Your task to perform on an android device: create a new album in the google photos Image 0: 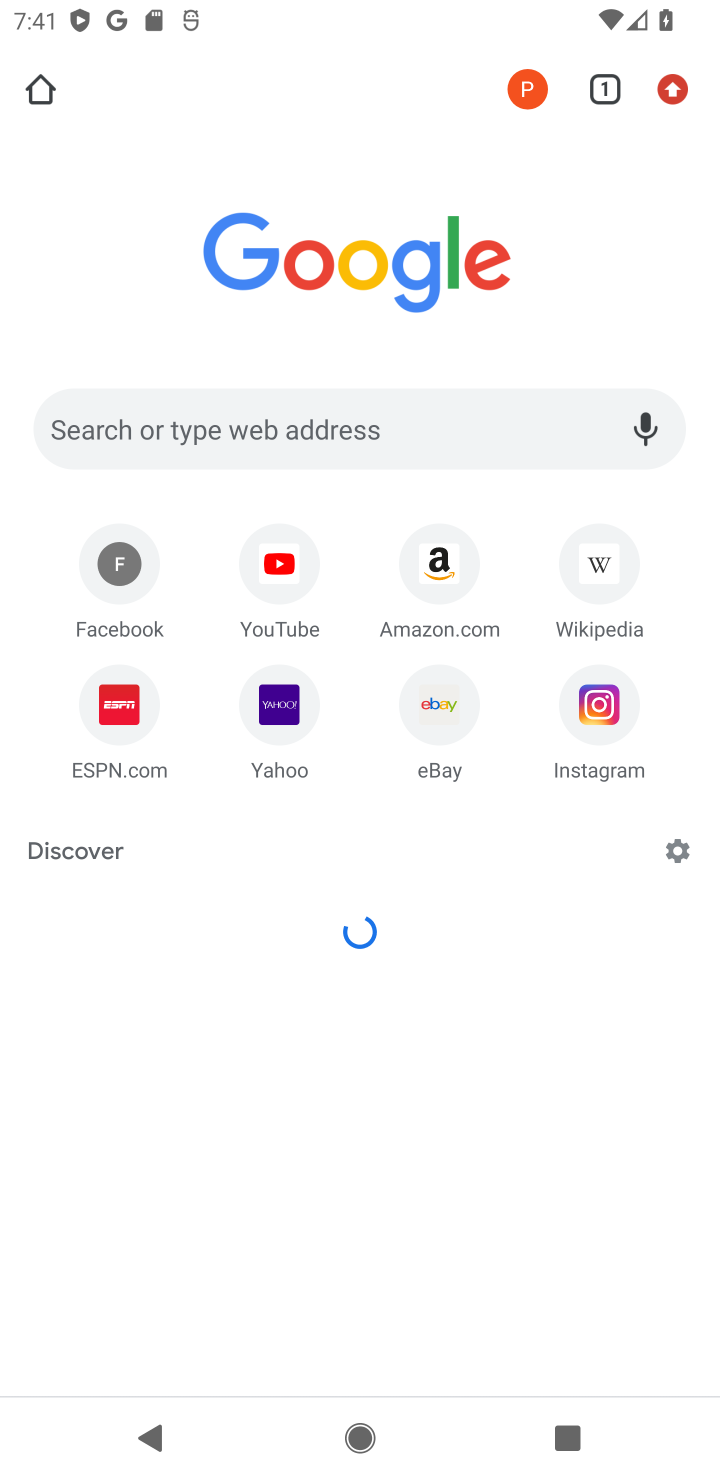
Step 0: press home button
Your task to perform on an android device: create a new album in the google photos Image 1: 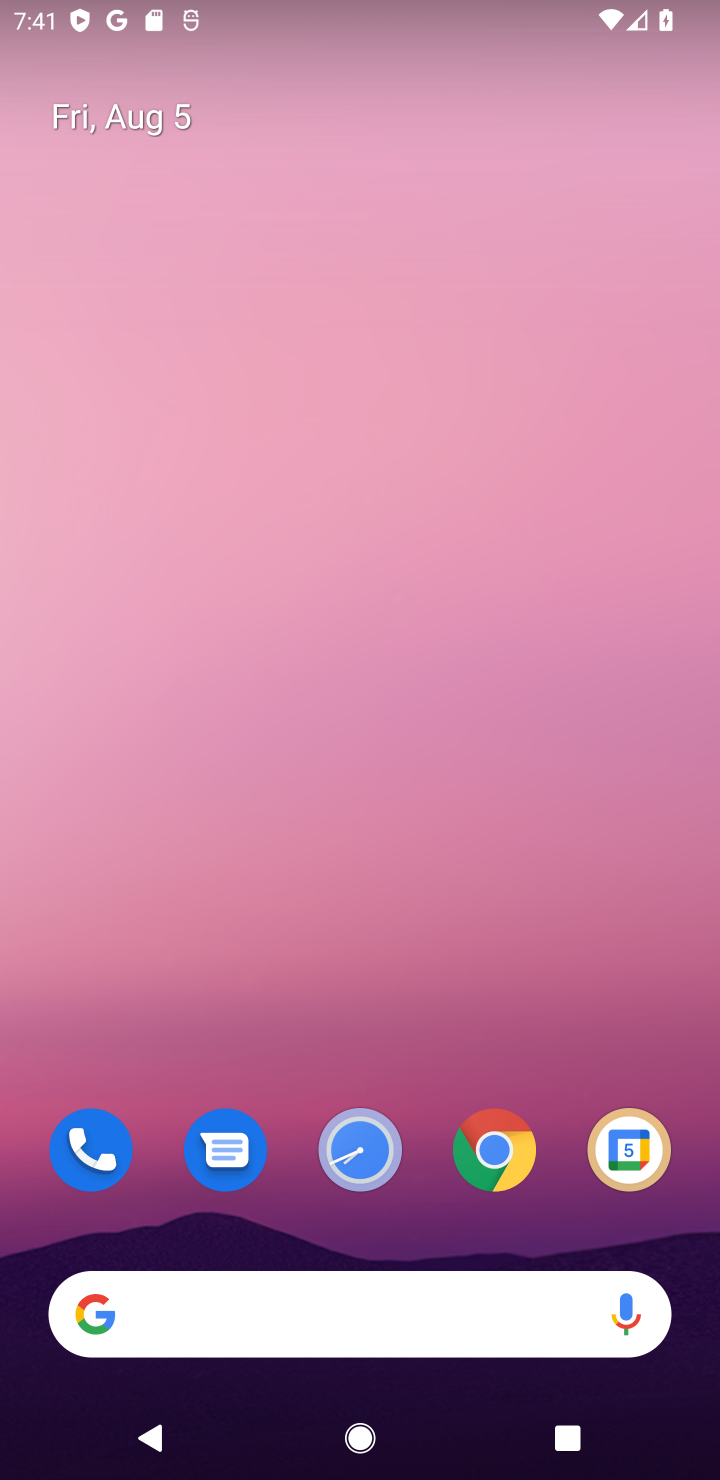
Step 1: press home button
Your task to perform on an android device: create a new album in the google photos Image 2: 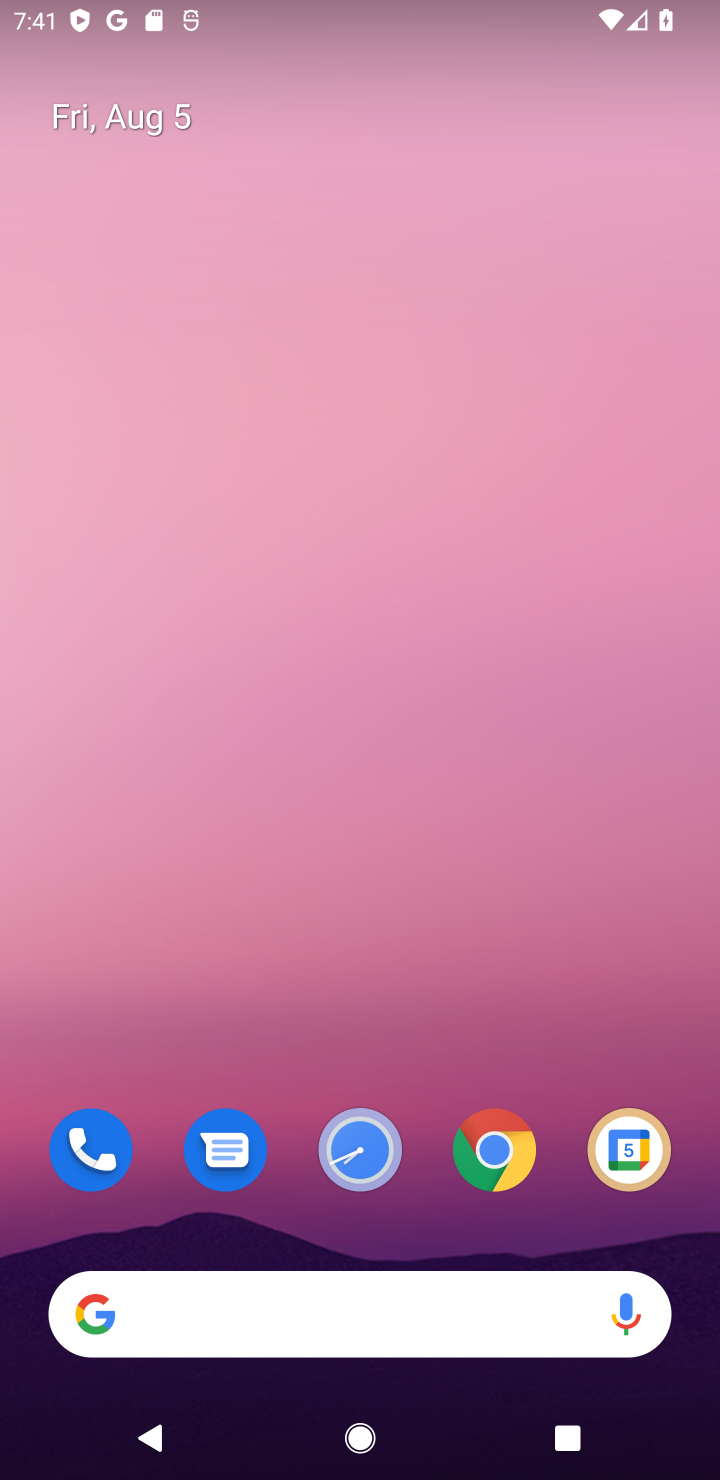
Step 2: drag from (299, 1018) to (302, 452)
Your task to perform on an android device: create a new album in the google photos Image 3: 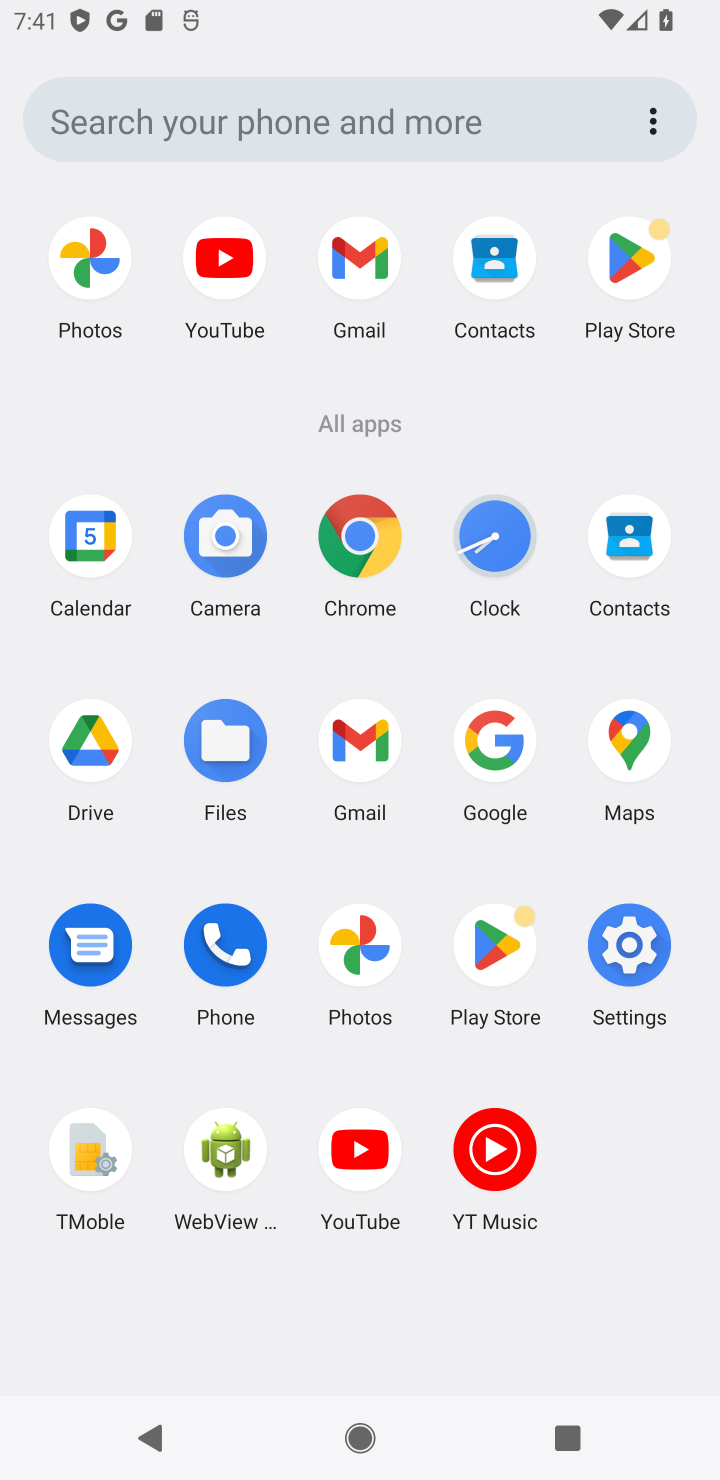
Step 3: click (363, 957)
Your task to perform on an android device: create a new album in the google photos Image 4: 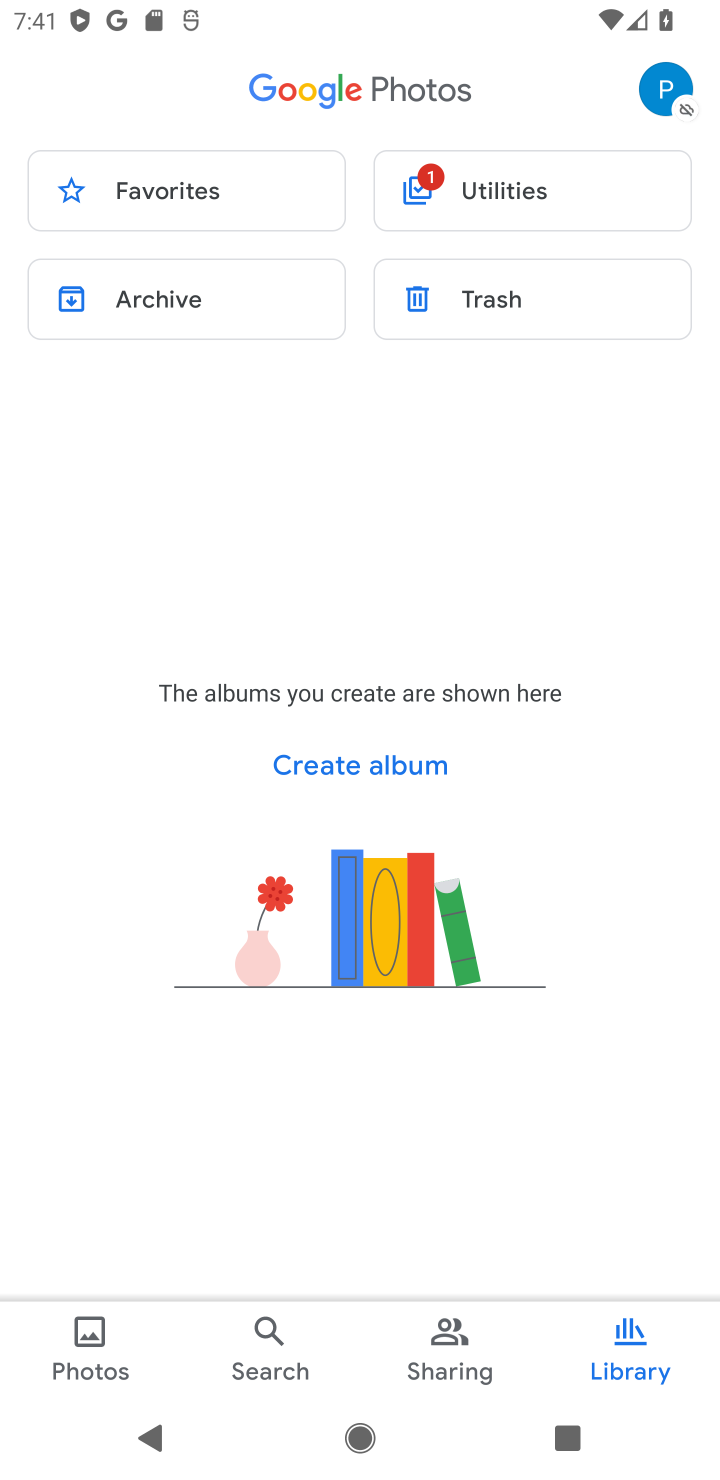
Step 4: click (380, 764)
Your task to perform on an android device: create a new album in the google photos Image 5: 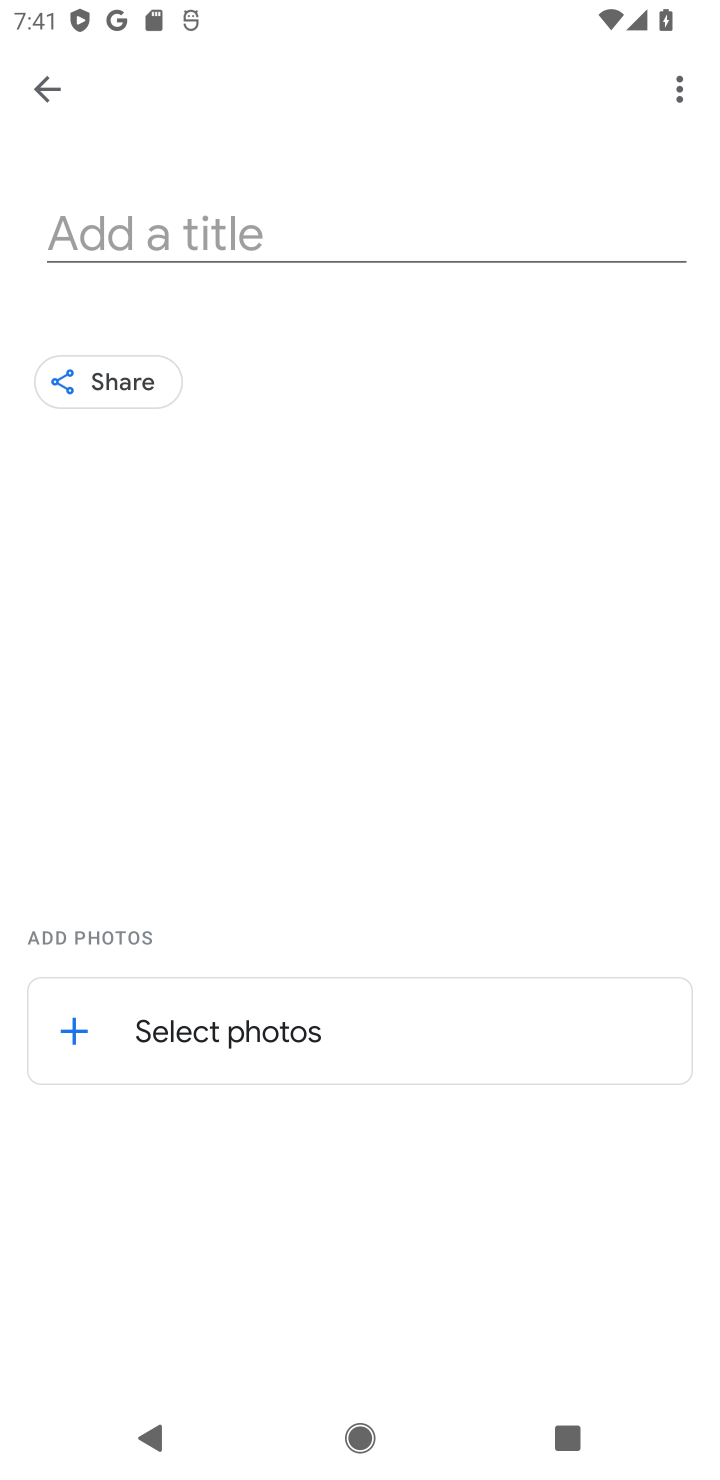
Step 5: click (270, 229)
Your task to perform on an android device: create a new album in the google photos Image 6: 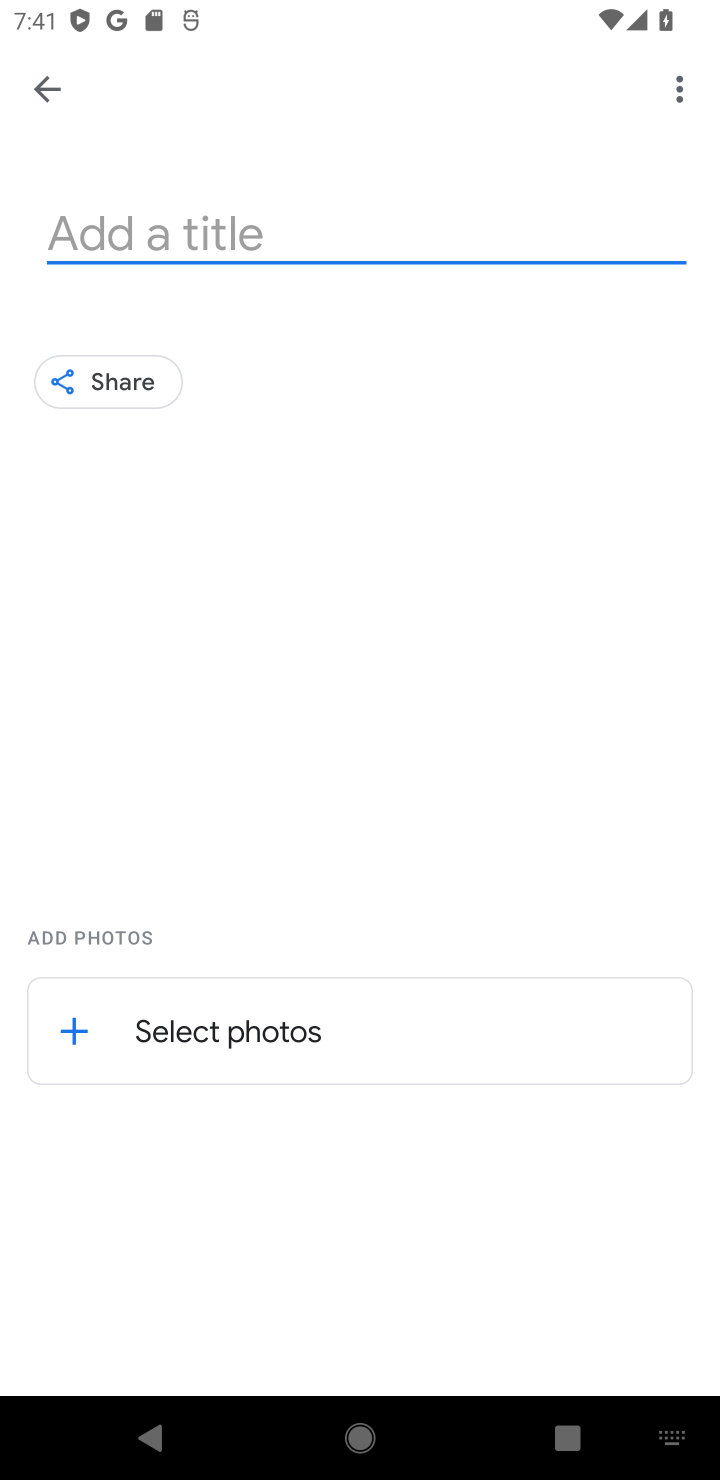
Step 6: type "fav"
Your task to perform on an android device: create a new album in the google photos Image 7: 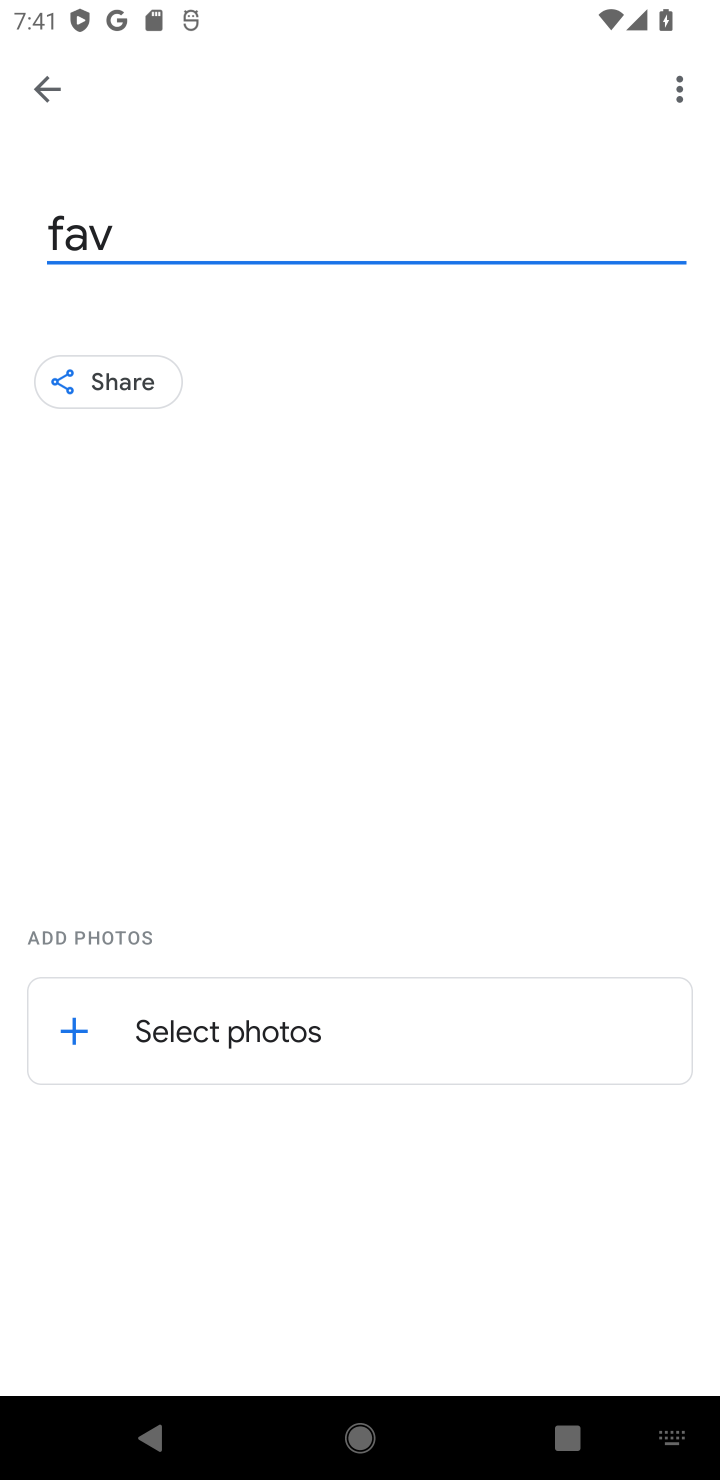
Step 7: click (302, 1020)
Your task to perform on an android device: create a new album in the google photos Image 8: 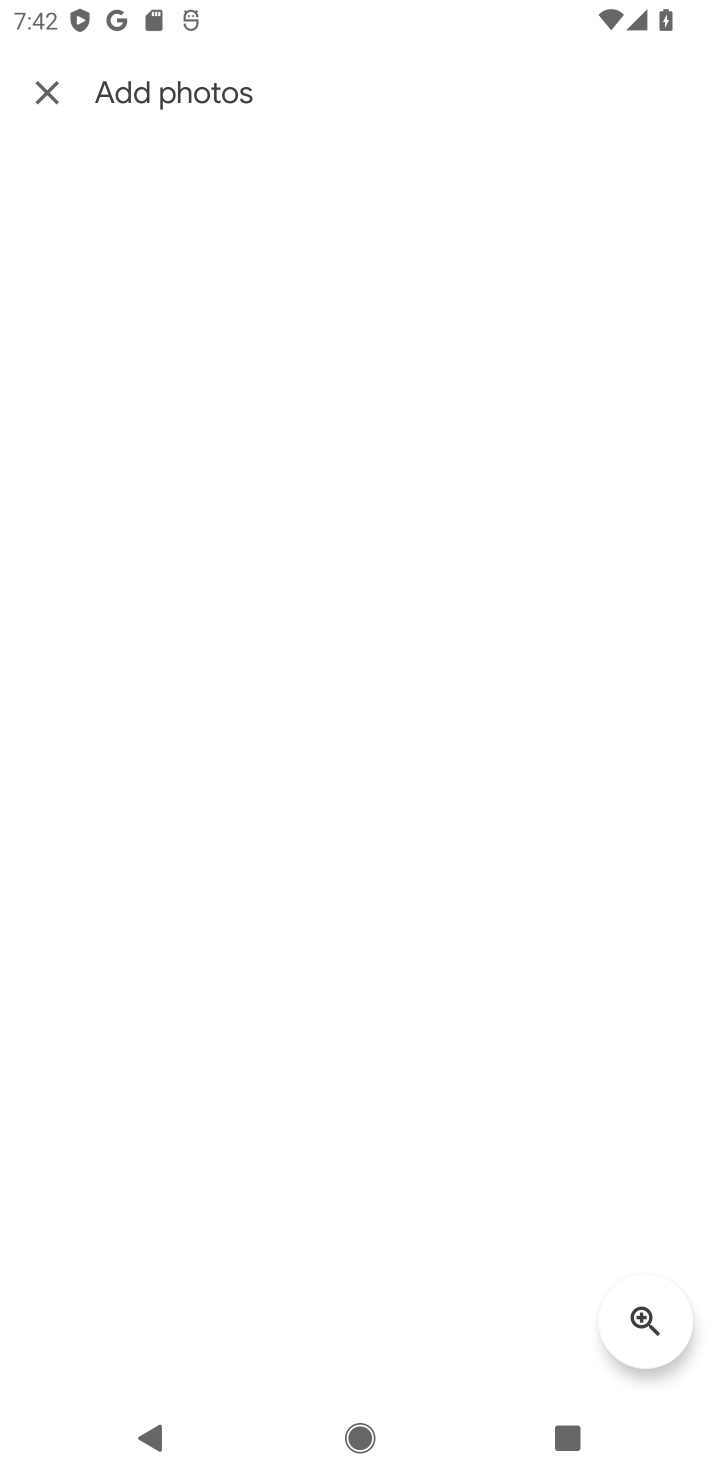
Step 8: task complete